Your task to perform on an android device: Open the web browser Image 0: 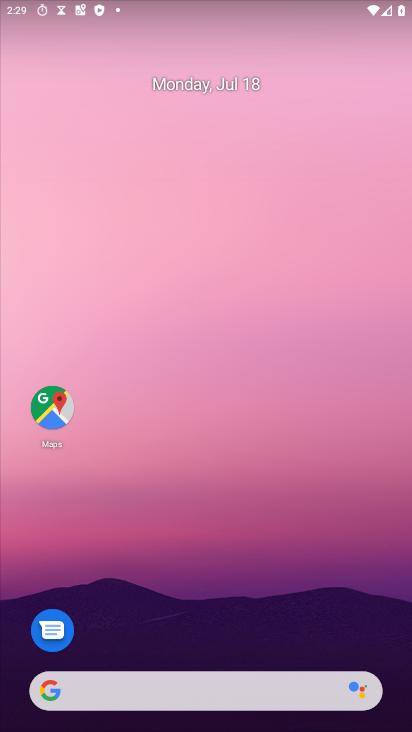
Step 0: drag from (264, 626) to (274, 132)
Your task to perform on an android device: Open the web browser Image 1: 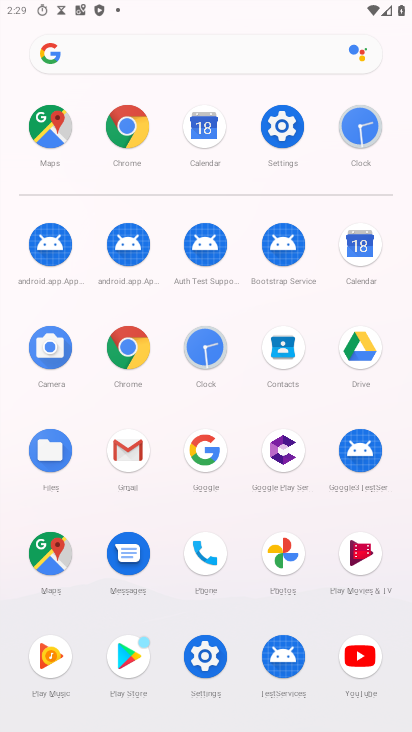
Step 1: click (130, 360)
Your task to perform on an android device: Open the web browser Image 2: 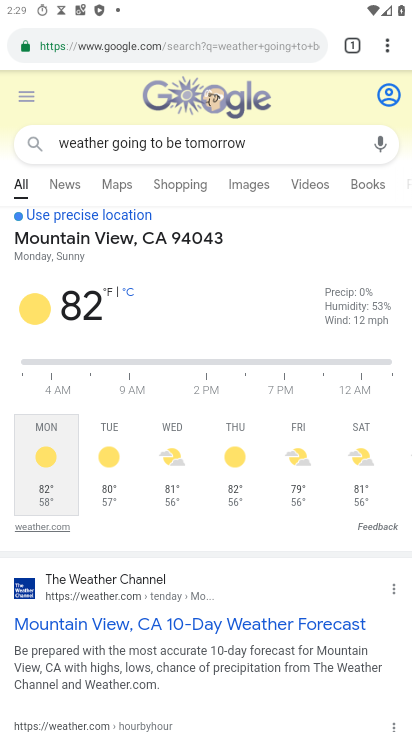
Step 2: task complete